Your task to perform on an android device: Check the news Image 0: 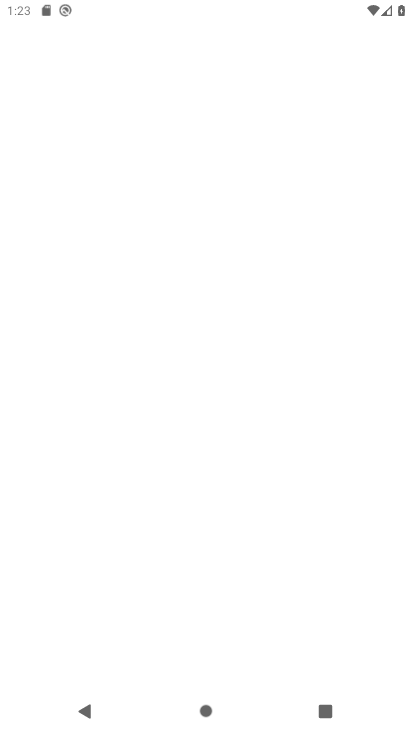
Step 0: press home button
Your task to perform on an android device: Check the news Image 1: 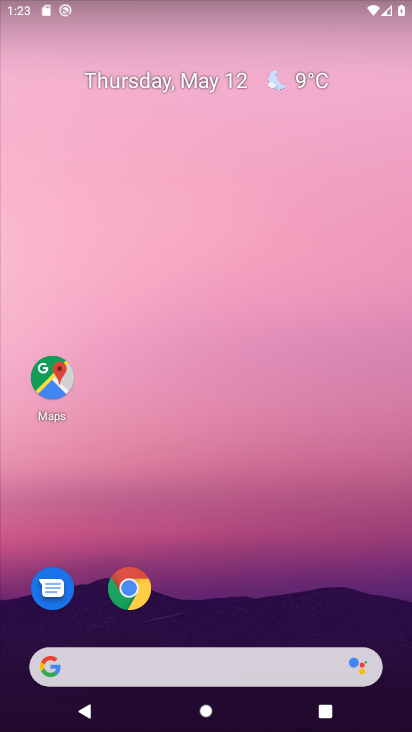
Step 1: drag from (305, 558) to (336, 33)
Your task to perform on an android device: Check the news Image 2: 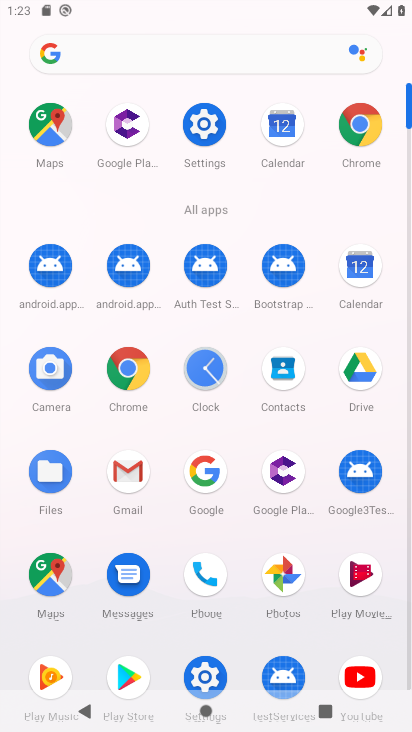
Step 2: click (354, 122)
Your task to perform on an android device: Check the news Image 3: 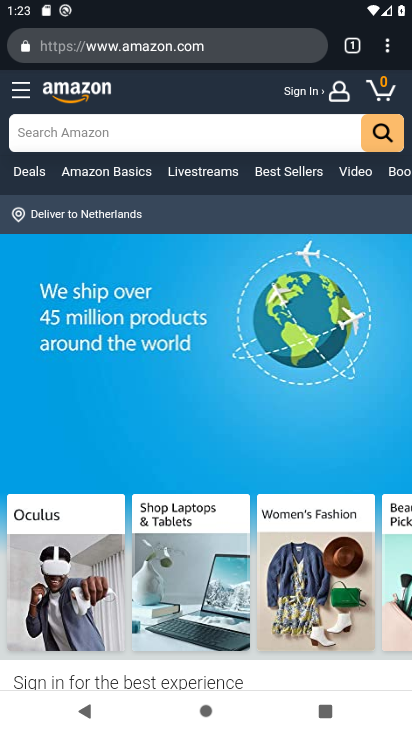
Step 3: task complete